Your task to perform on an android device: What is the recent news? Image 0: 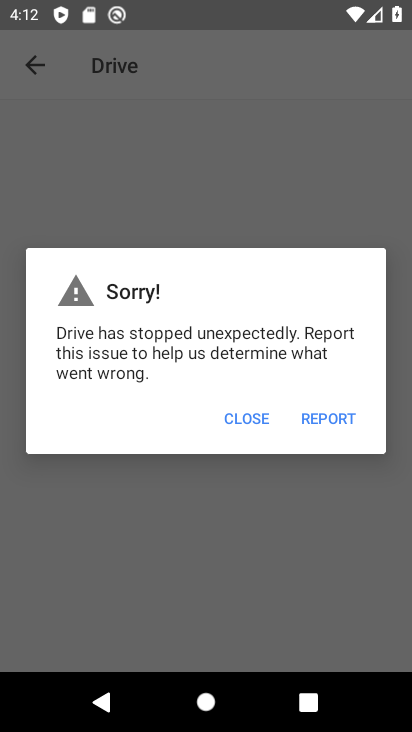
Step 0: press home button
Your task to perform on an android device: What is the recent news? Image 1: 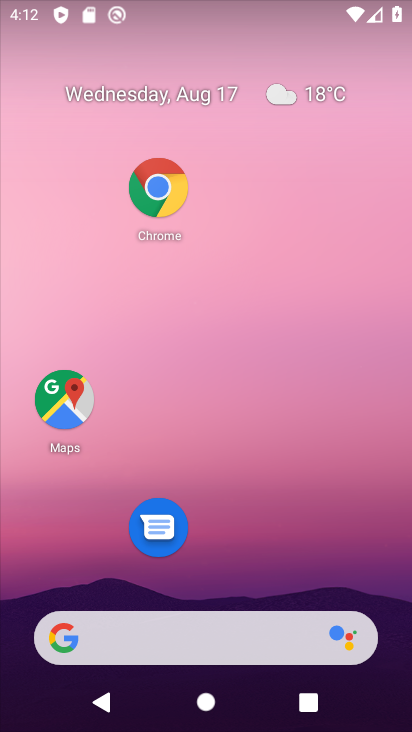
Step 1: click (148, 620)
Your task to perform on an android device: What is the recent news? Image 2: 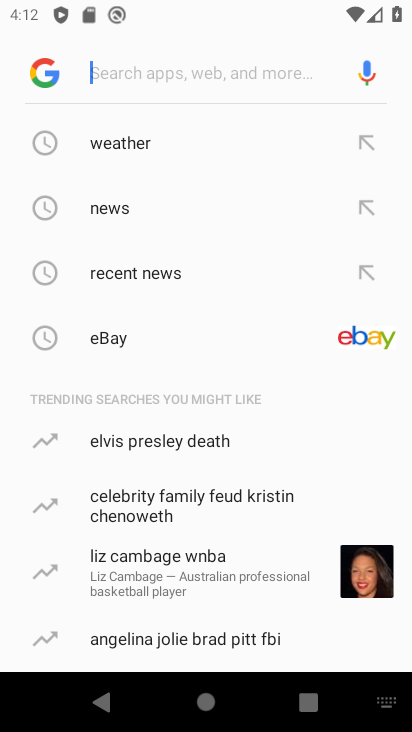
Step 2: click (233, 279)
Your task to perform on an android device: What is the recent news? Image 3: 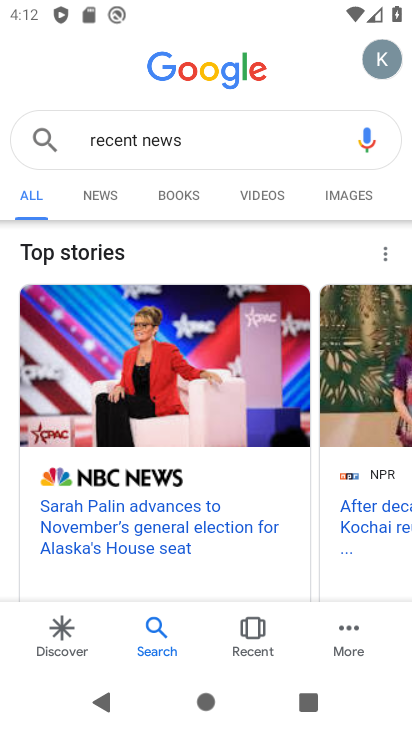
Step 3: task complete